Your task to perform on an android device: check google app version Image 0: 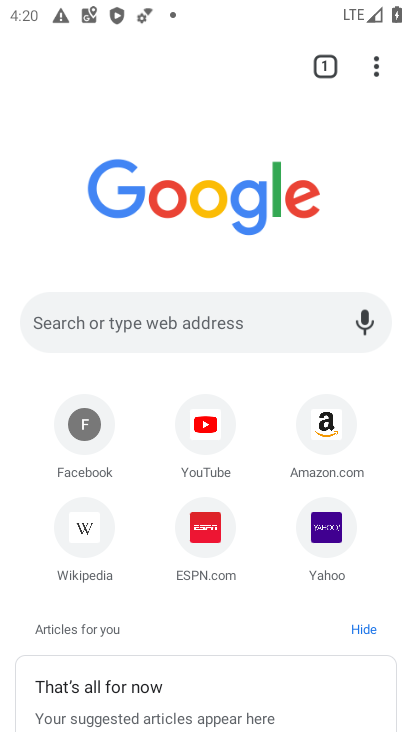
Step 0: press home button
Your task to perform on an android device: check google app version Image 1: 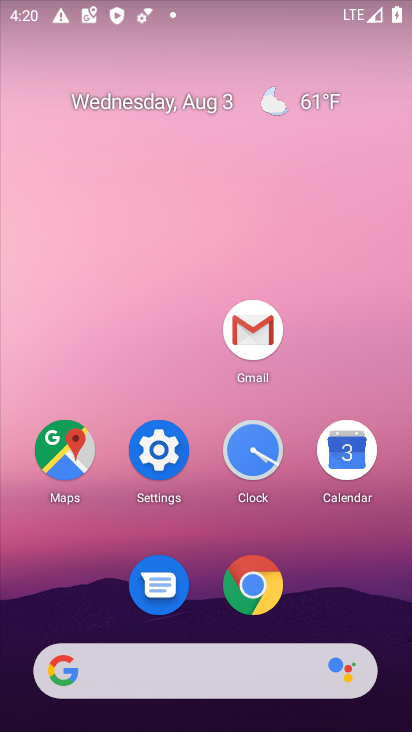
Step 1: drag from (387, 672) to (313, 146)
Your task to perform on an android device: check google app version Image 2: 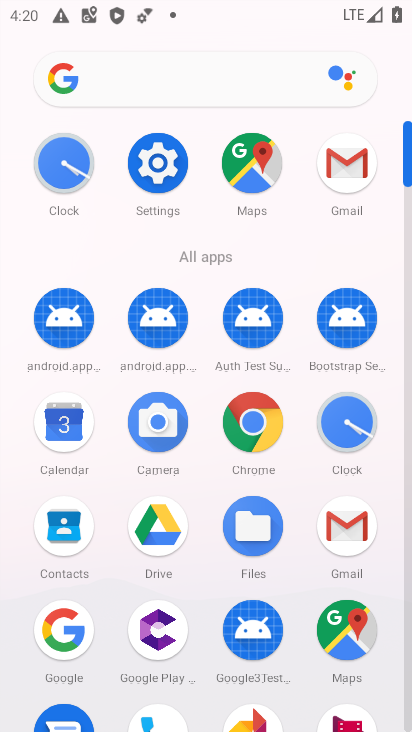
Step 2: drag from (187, 649) to (185, 330)
Your task to perform on an android device: check google app version Image 3: 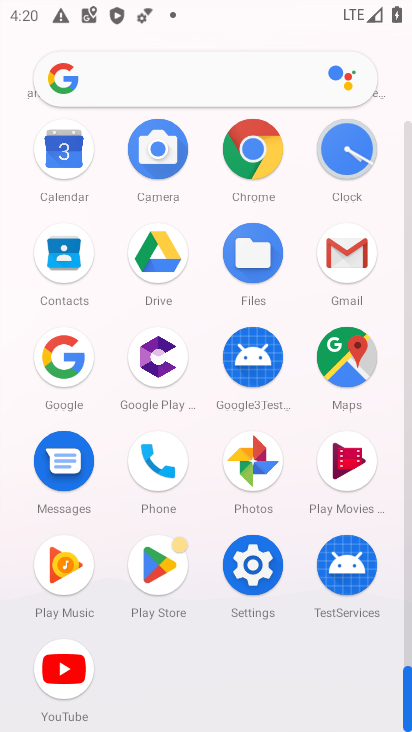
Step 3: click (68, 352)
Your task to perform on an android device: check google app version Image 4: 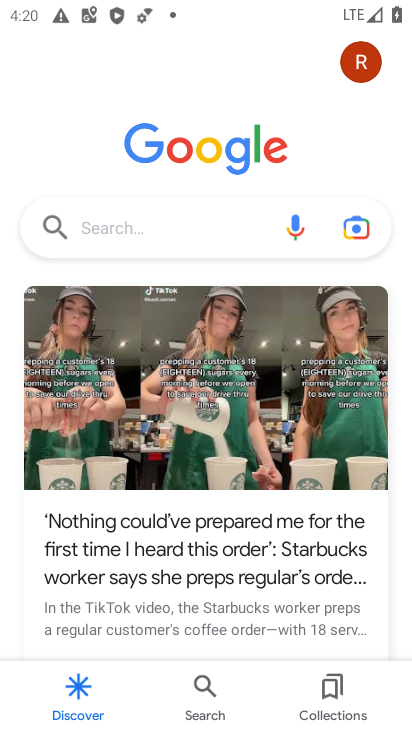
Step 4: click (338, 684)
Your task to perform on an android device: check google app version Image 5: 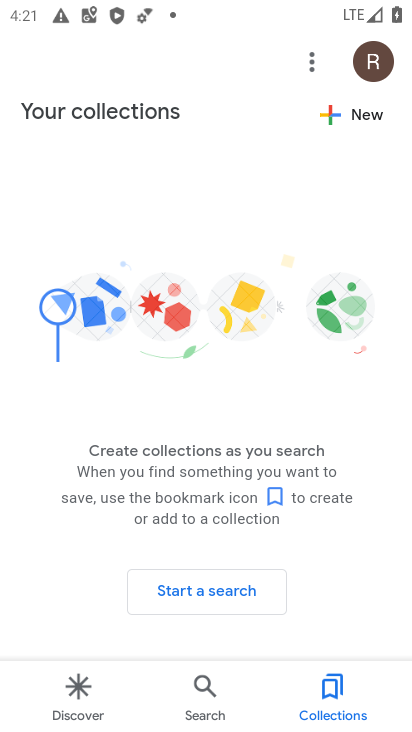
Step 5: click (343, 702)
Your task to perform on an android device: check google app version Image 6: 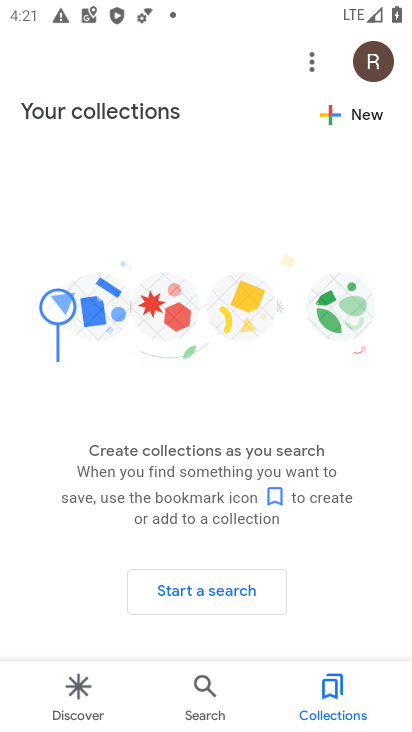
Step 6: click (337, 703)
Your task to perform on an android device: check google app version Image 7: 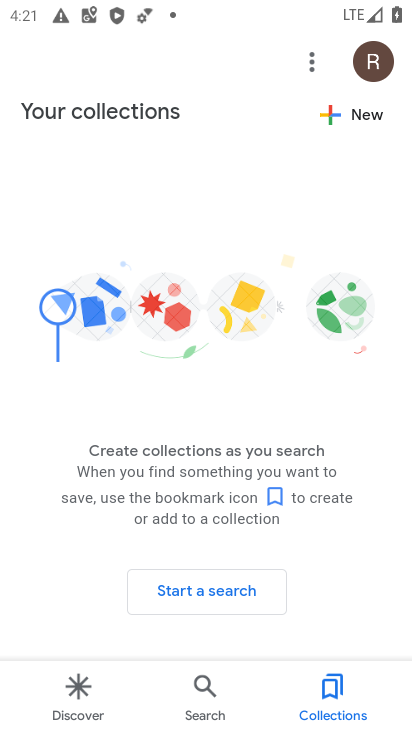
Step 7: task complete